Your task to perform on an android device: Search for "macbook pro 13 inch" on costco, select the first entry, add it to the cart, then select checkout. Image 0: 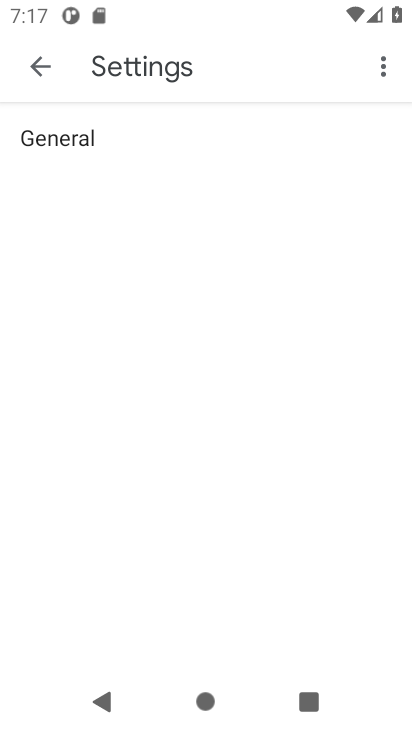
Step 0: press home button
Your task to perform on an android device: Search for "macbook pro 13 inch" on costco, select the first entry, add it to the cart, then select checkout. Image 1: 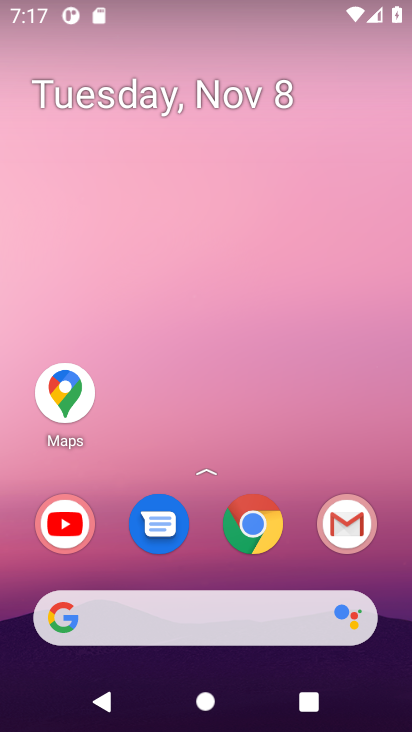
Step 1: click (266, 525)
Your task to perform on an android device: Search for "macbook pro 13 inch" on costco, select the first entry, add it to the cart, then select checkout. Image 2: 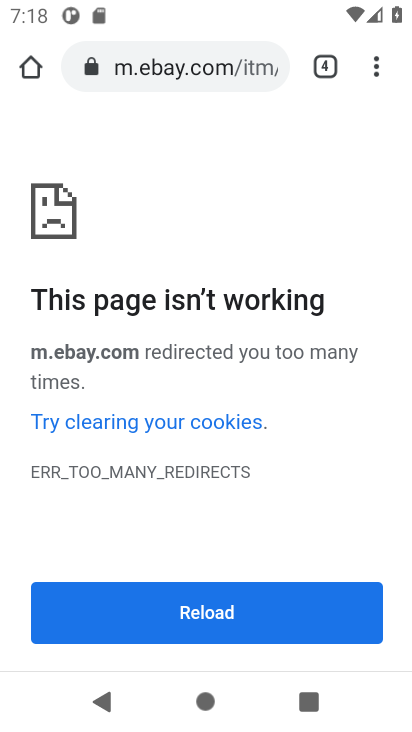
Step 2: click (145, 75)
Your task to perform on an android device: Search for "macbook pro 13 inch" on costco, select the first entry, add it to the cart, then select checkout. Image 3: 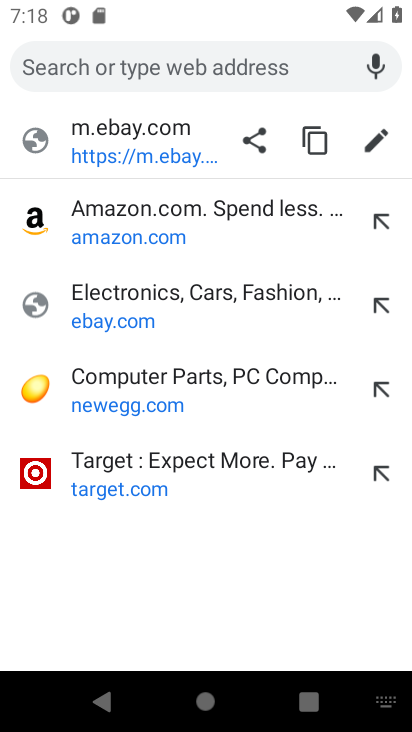
Step 3: type "costco.com"
Your task to perform on an android device: Search for "macbook pro 13 inch" on costco, select the first entry, add it to the cart, then select checkout. Image 4: 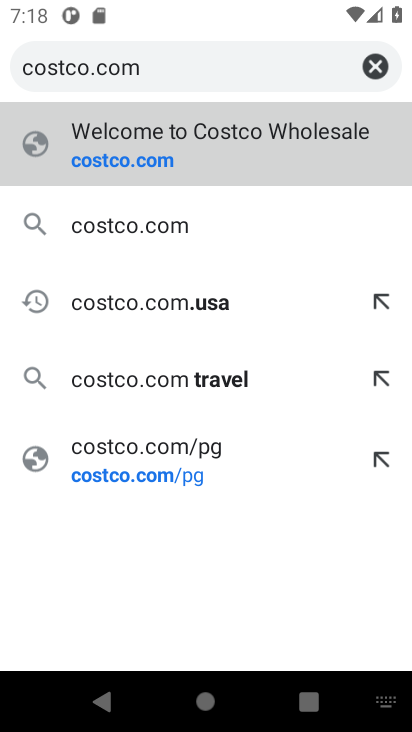
Step 4: click (151, 147)
Your task to perform on an android device: Search for "macbook pro 13 inch" on costco, select the first entry, add it to the cart, then select checkout. Image 5: 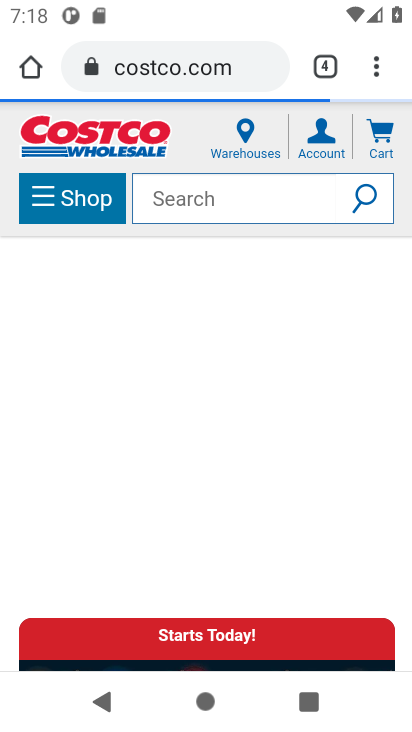
Step 5: click (182, 185)
Your task to perform on an android device: Search for "macbook pro 13 inch" on costco, select the first entry, add it to the cart, then select checkout. Image 6: 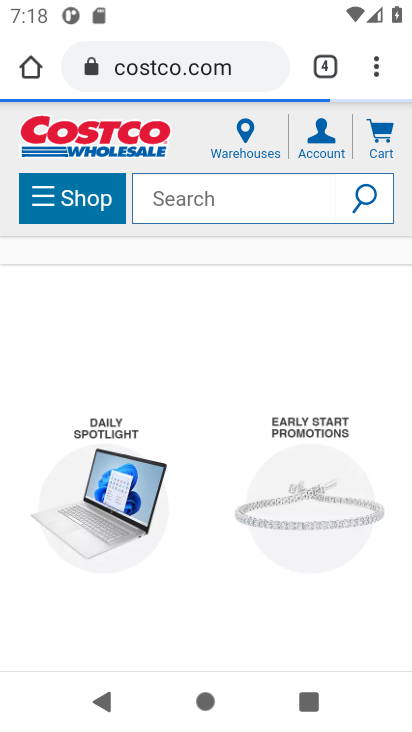
Step 6: type "macbook pro 13 inch"
Your task to perform on an android device: Search for "macbook pro 13 inch" on costco, select the first entry, add it to the cart, then select checkout. Image 7: 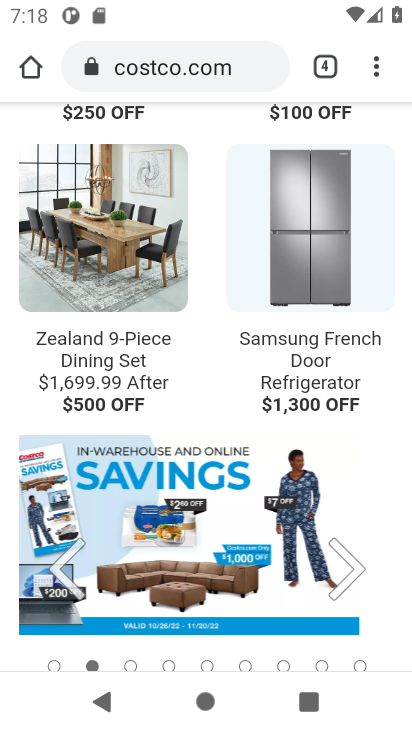
Step 7: drag from (198, 514) to (198, 170)
Your task to perform on an android device: Search for "macbook pro 13 inch" on costco, select the first entry, add it to the cart, then select checkout. Image 8: 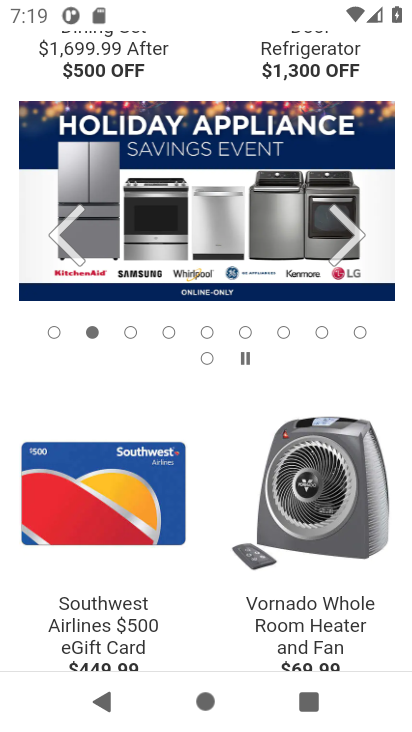
Step 8: drag from (185, 301) to (171, 655)
Your task to perform on an android device: Search for "macbook pro 13 inch" on costco, select the first entry, add it to the cart, then select checkout. Image 9: 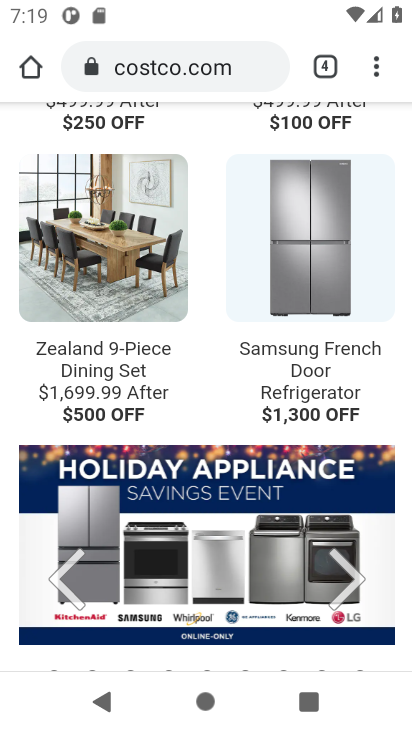
Step 9: drag from (156, 269) to (149, 623)
Your task to perform on an android device: Search for "macbook pro 13 inch" on costco, select the first entry, add it to the cart, then select checkout. Image 10: 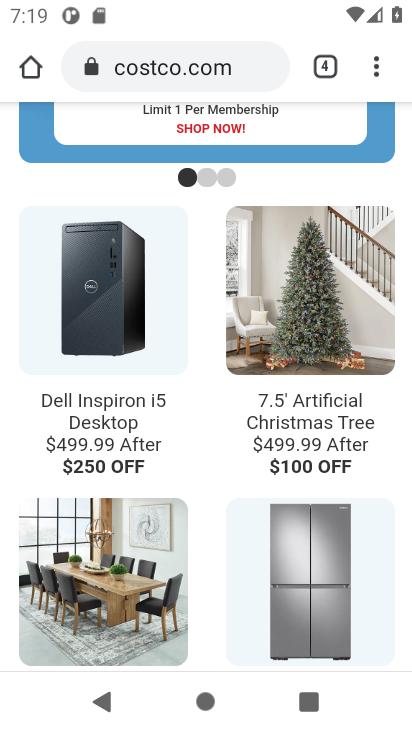
Step 10: drag from (132, 241) to (131, 581)
Your task to perform on an android device: Search for "macbook pro 13 inch" on costco, select the first entry, add it to the cart, then select checkout. Image 11: 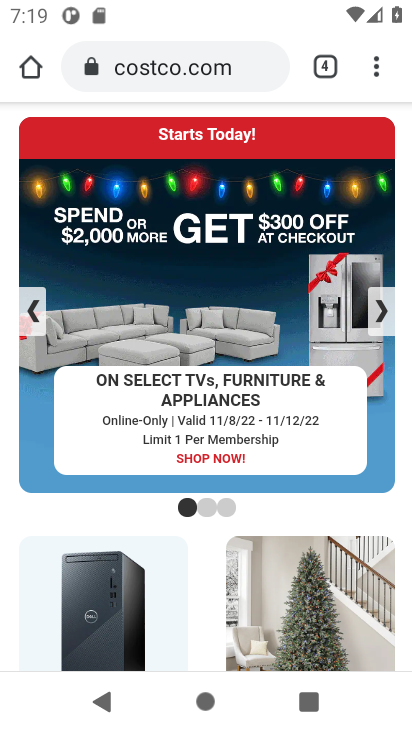
Step 11: drag from (142, 266) to (129, 633)
Your task to perform on an android device: Search for "macbook pro 13 inch" on costco, select the first entry, add it to the cart, then select checkout. Image 12: 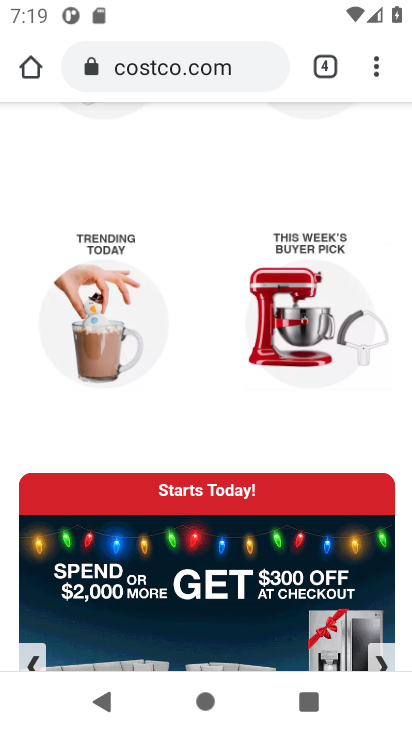
Step 12: drag from (158, 251) to (163, 619)
Your task to perform on an android device: Search for "macbook pro 13 inch" on costco, select the first entry, add it to the cart, then select checkout. Image 13: 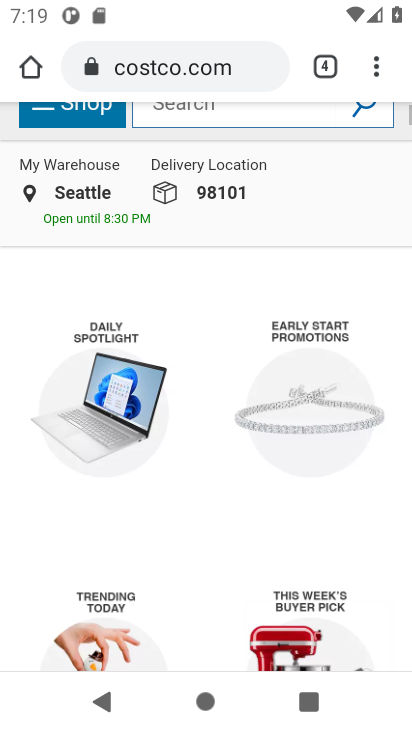
Step 13: drag from (186, 323) to (183, 562)
Your task to perform on an android device: Search for "macbook pro 13 inch" on costco, select the first entry, add it to the cart, then select checkout. Image 14: 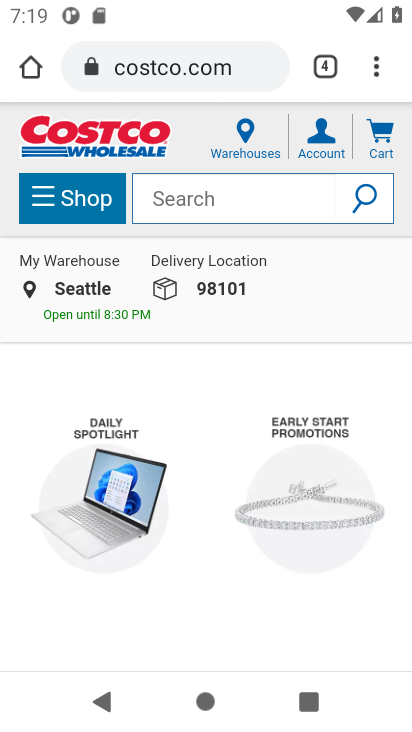
Step 14: click (191, 200)
Your task to perform on an android device: Search for "macbook pro 13 inch" on costco, select the first entry, add it to the cart, then select checkout. Image 15: 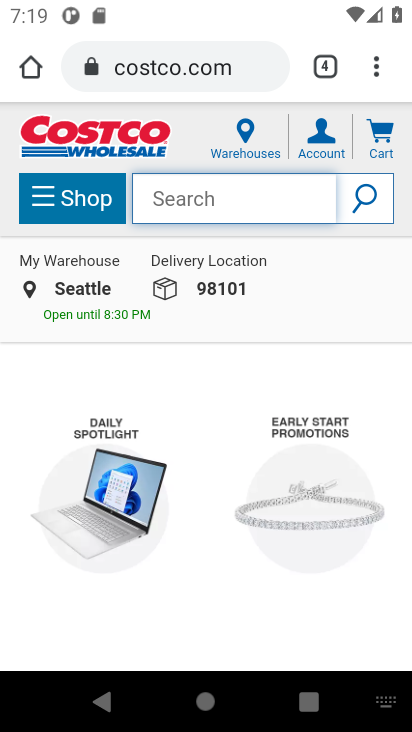
Step 15: type "macbook pro 13 inch"
Your task to perform on an android device: Search for "macbook pro 13 inch" on costco, select the first entry, add it to the cart, then select checkout. Image 16: 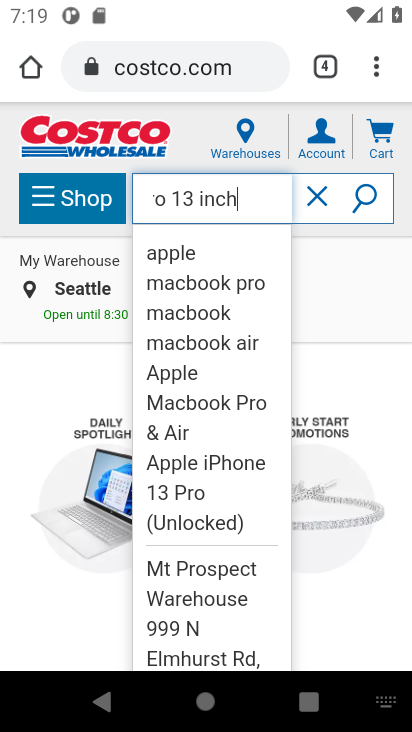
Step 16: click (371, 196)
Your task to perform on an android device: Search for "macbook pro 13 inch" on costco, select the first entry, add it to the cart, then select checkout. Image 17: 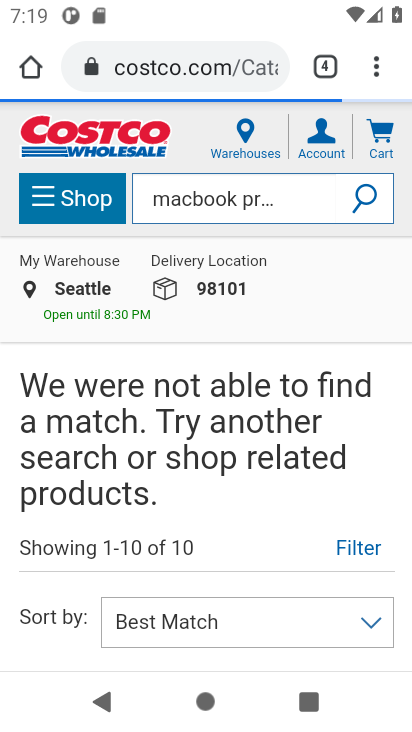
Step 17: task complete